Your task to perform on an android device: manage bookmarks in the chrome app Image 0: 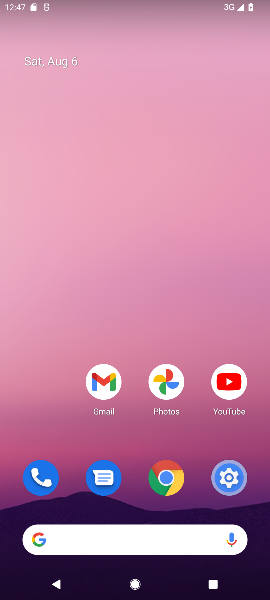
Step 0: click (154, 477)
Your task to perform on an android device: manage bookmarks in the chrome app Image 1: 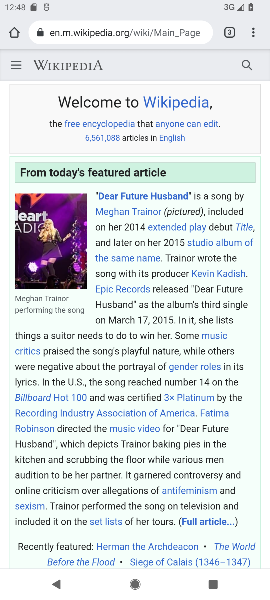
Step 1: click (252, 35)
Your task to perform on an android device: manage bookmarks in the chrome app Image 2: 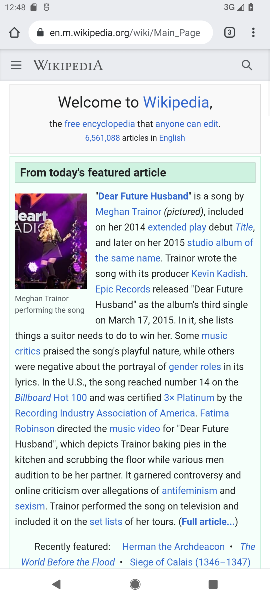
Step 2: click (252, 35)
Your task to perform on an android device: manage bookmarks in the chrome app Image 3: 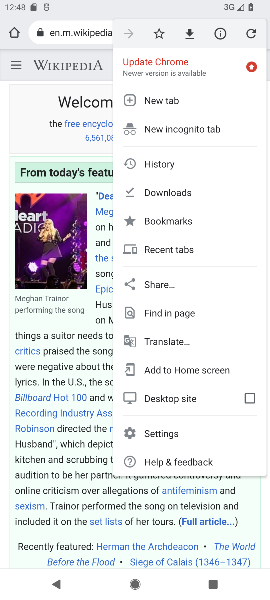
Step 3: click (164, 222)
Your task to perform on an android device: manage bookmarks in the chrome app Image 4: 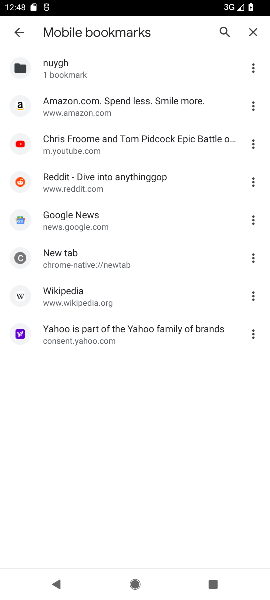
Step 4: task complete